Your task to perform on an android device: Search for sushi restaurants on Maps Image 0: 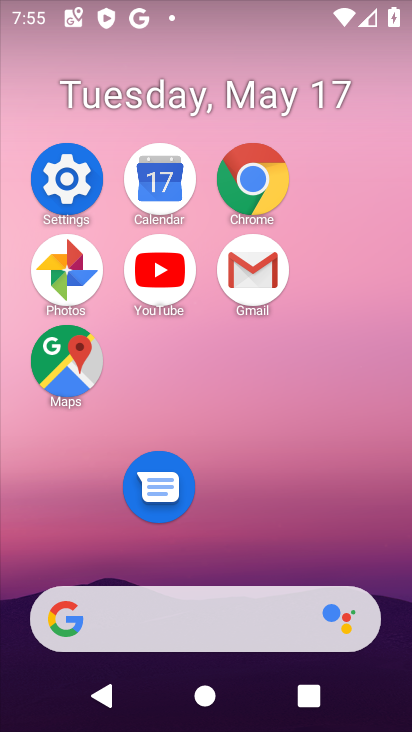
Step 0: click (76, 346)
Your task to perform on an android device: Search for sushi restaurants on Maps Image 1: 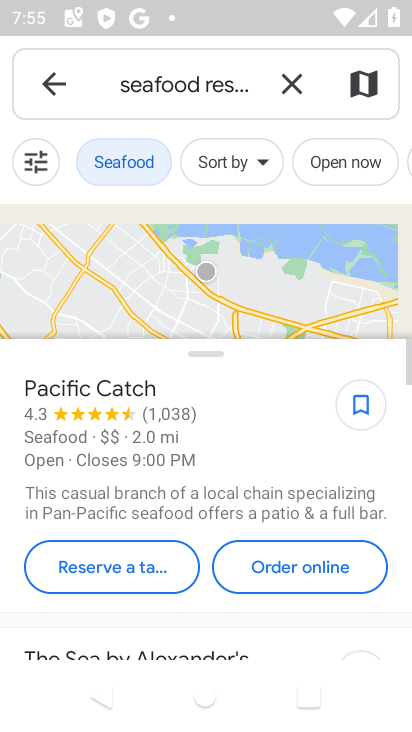
Step 1: click (304, 84)
Your task to perform on an android device: Search for sushi restaurants on Maps Image 2: 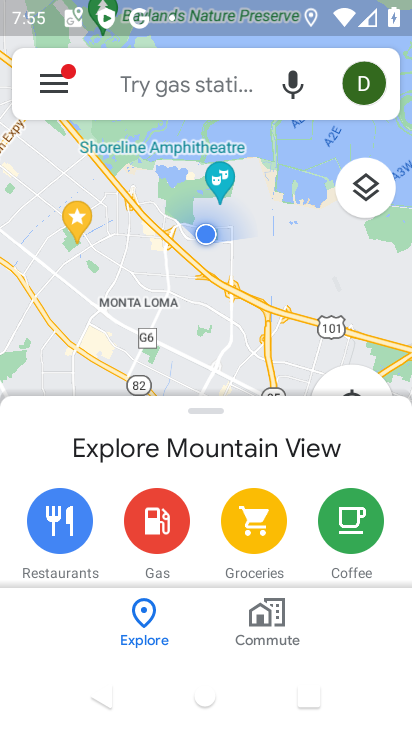
Step 2: click (167, 94)
Your task to perform on an android device: Search for sushi restaurants on Maps Image 3: 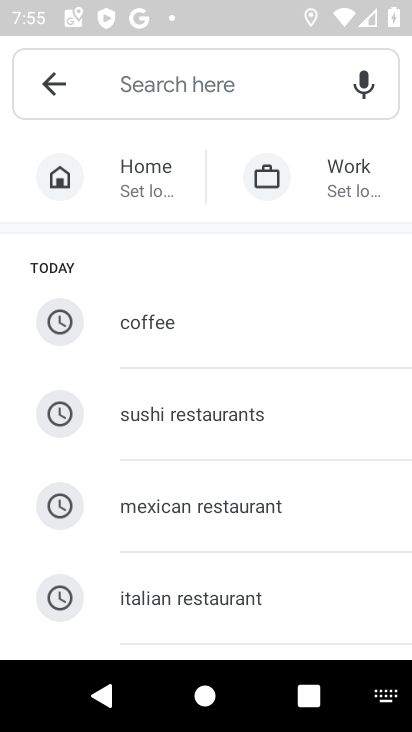
Step 3: click (205, 402)
Your task to perform on an android device: Search for sushi restaurants on Maps Image 4: 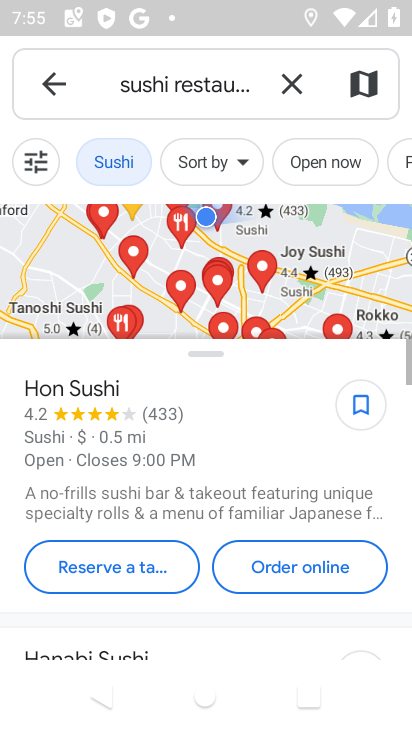
Step 4: task complete